Your task to perform on an android device: move a message to another label in the gmail app Image 0: 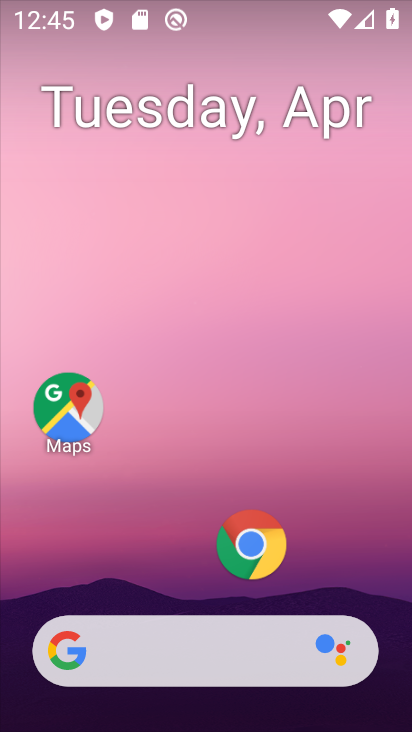
Step 0: drag from (165, 550) to (222, 87)
Your task to perform on an android device: move a message to another label in the gmail app Image 1: 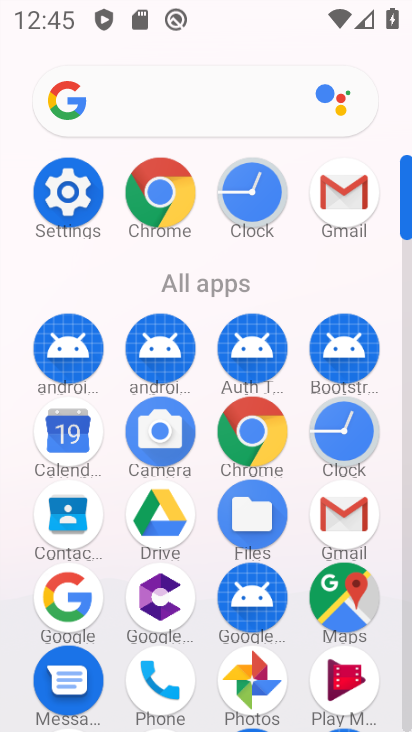
Step 1: click (341, 175)
Your task to perform on an android device: move a message to another label in the gmail app Image 2: 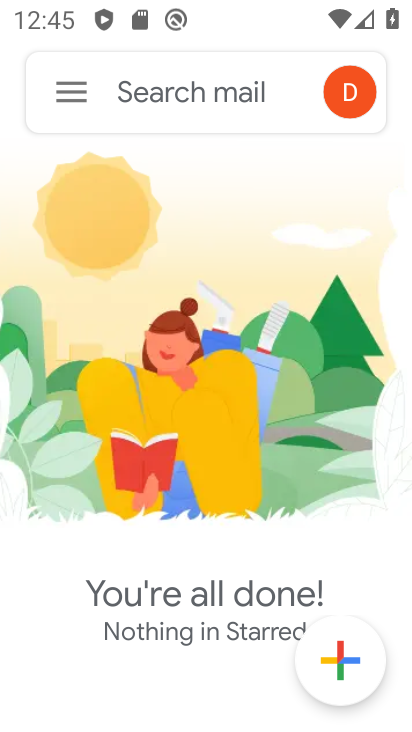
Step 2: click (75, 79)
Your task to perform on an android device: move a message to another label in the gmail app Image 3: 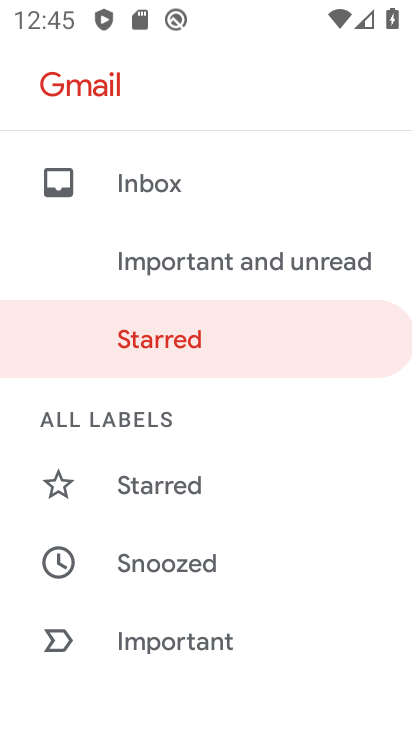
Step 3: click (169, 173)
Your task to perform on an android device: move a message to another label in the gmail app Image 4: 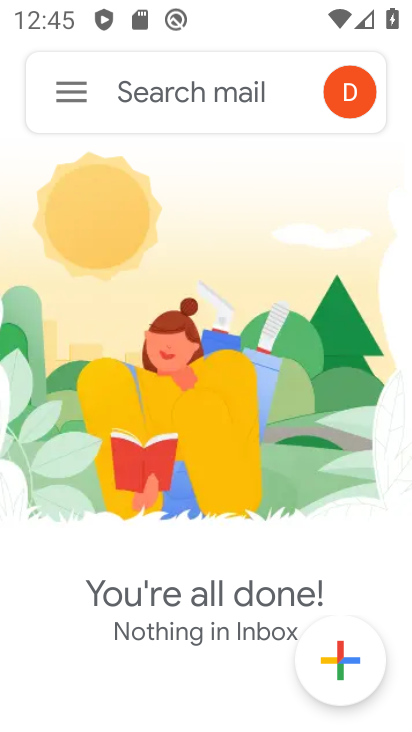
Step 4: click (68, 70)
Your task to perform on an android device: move a message to another label in the gmail app Image 5: 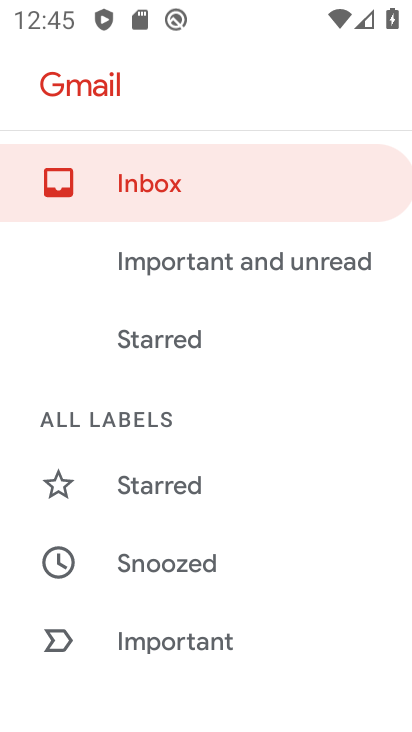
Step 5: drag from (202, 640) to (260, 97)
Your task to perform on an android device: move a message to another label in the gmail app Image 6: 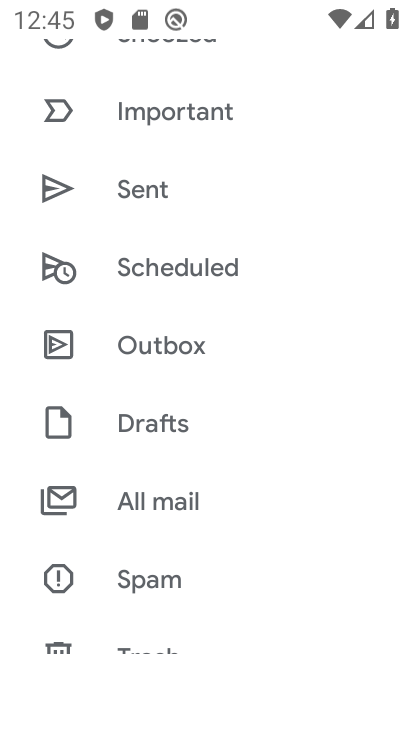
Step 6: click (110, 500)
Your task to perform on an android device: move a message to another label in the gmail app Image 7: 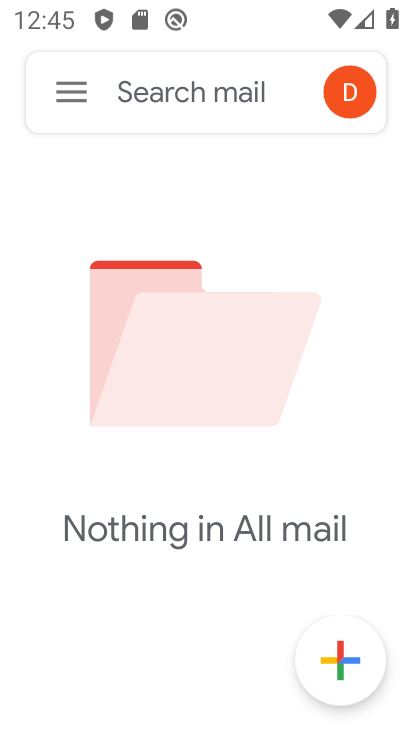
Step 7: task complete